Your task to perform on an android device: toggle notification dots Image 0: 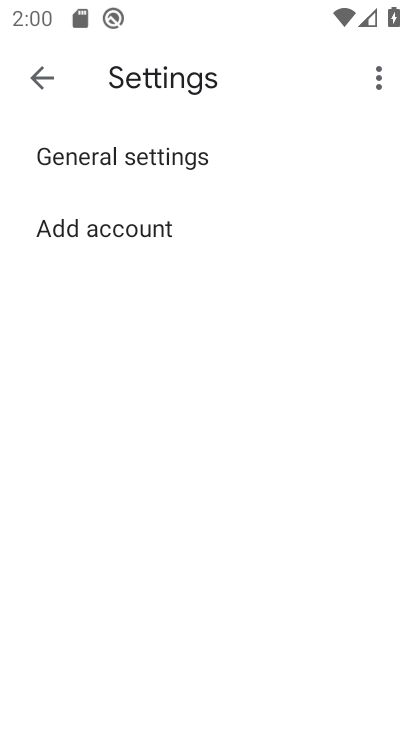
Step 0: press home button
Your task to perform on an android device: toggle notification dots Image 1: 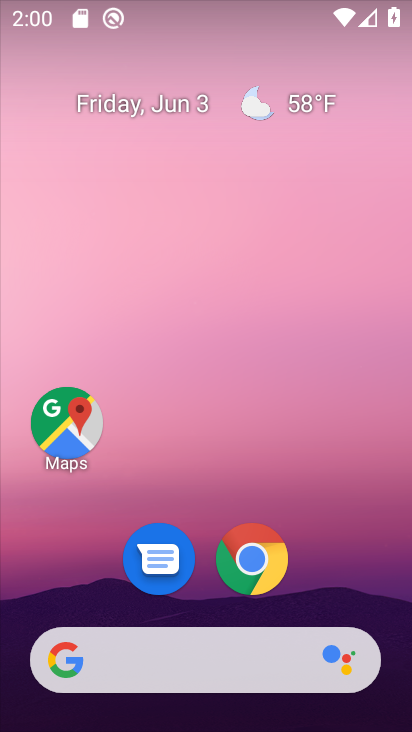
Step 1: drag from (197, 610) to (340, 43)
Your task to perform on an android device: toggle notification dots Image 2: 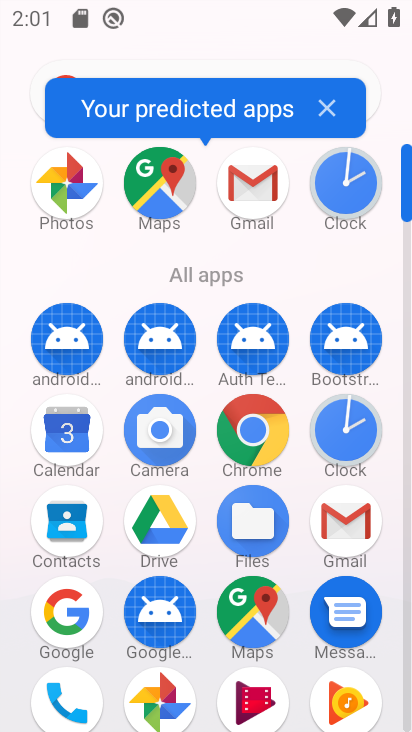
Step 2: drag from (204, 579) to (173, 12)
Your task to perform on an android device: toggle notification dots Image 3: 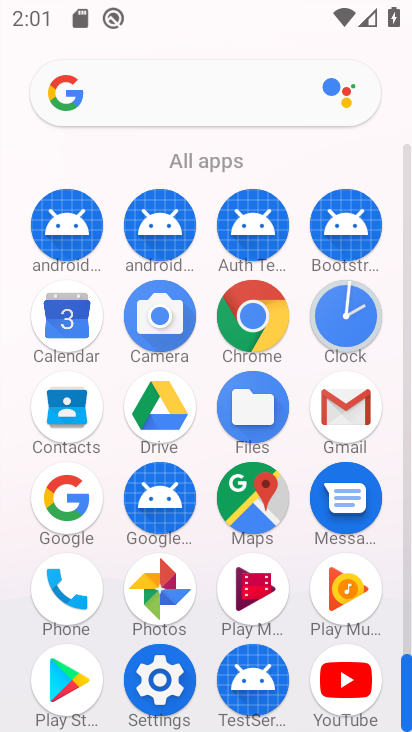
Step 3: click (154, 644)
Your task to perform on an android device: toggle notification dots Image 4: 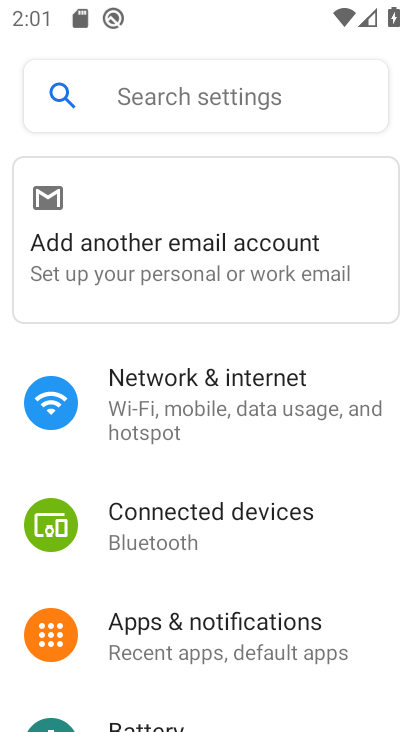
Step 4: click (163, 646)
Your task to perform on an android device: toggle notification dots Image 5: 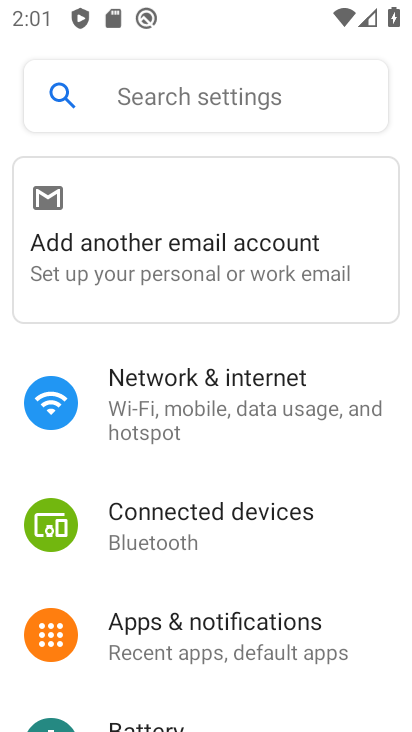
Step 5: click (201, 668)
Your task to perform on an android device: toggle notification dots Image 6: 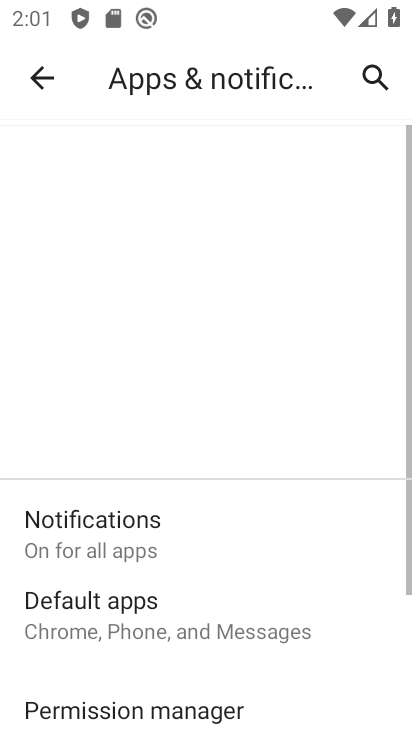
Step 6: drag from (179, 619) to (180, 16)
Your task to perform on an android device: toggle notification dots Image 7: 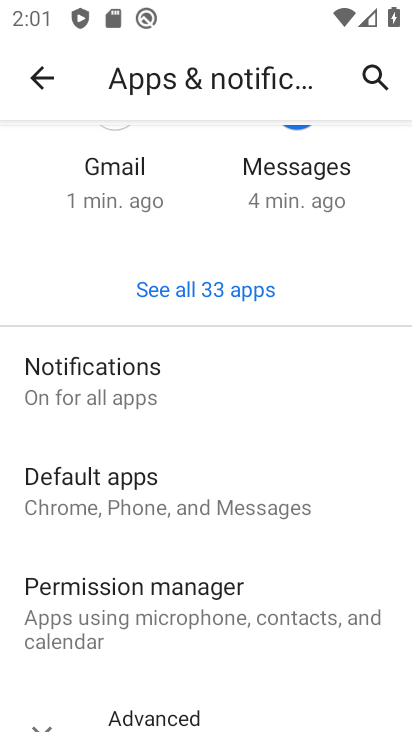
Step 7: drag from (268, 650) to (189, 115)
Your task to perform on an android device: toggle notification dots Image 8: 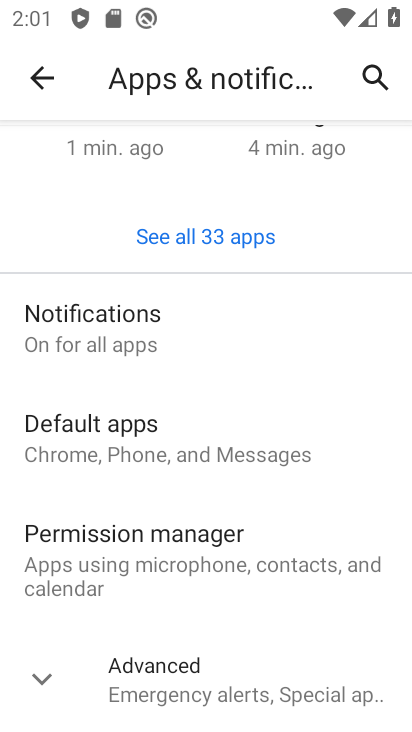
Step 8: click (196, 686)
Your task to perform on an android device: toggle notification dots Image 9: 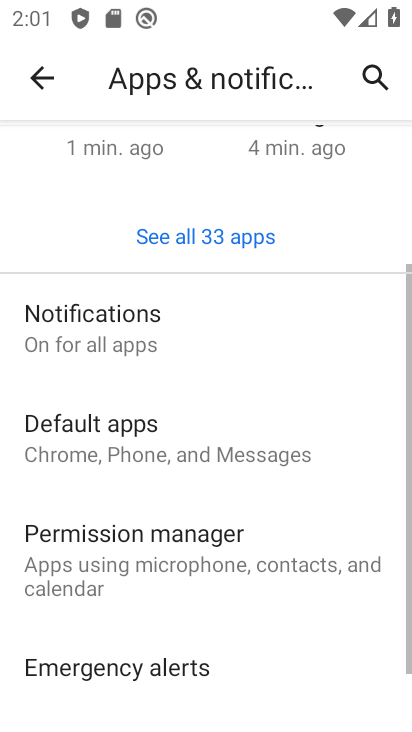
Step 9: drag from (212, 636) to (166, 181)
Your task to perform on an android device: toggle notification dots Image 10: 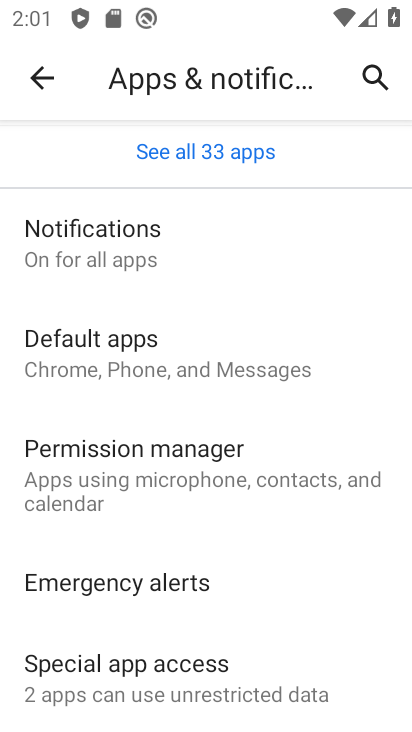
Step 10: click (90, 248)
Your task to perform on an android device: toggle notification dots Image 11: 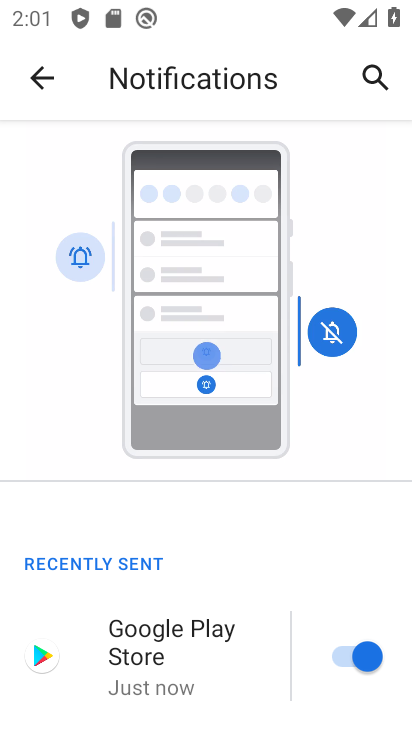
Step 11: drag from (177, 561) to (93, 70)
Your task to perform on an android device: toggle notification dots Image 12: 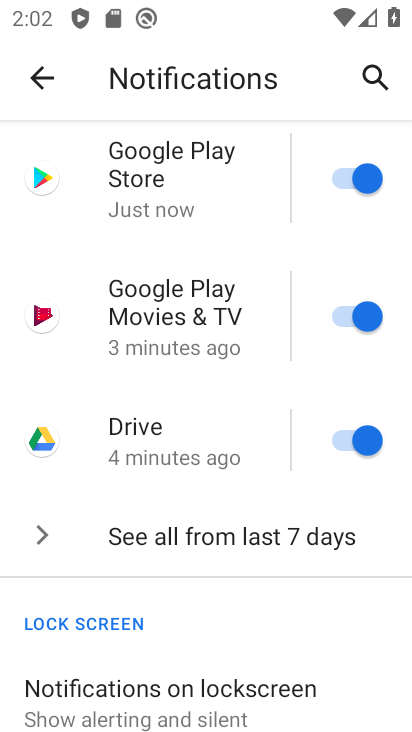
Step 12: drag from (226, 631) to (199, 109)
Your task to perform on an android device: toggle notification dots Image 13: 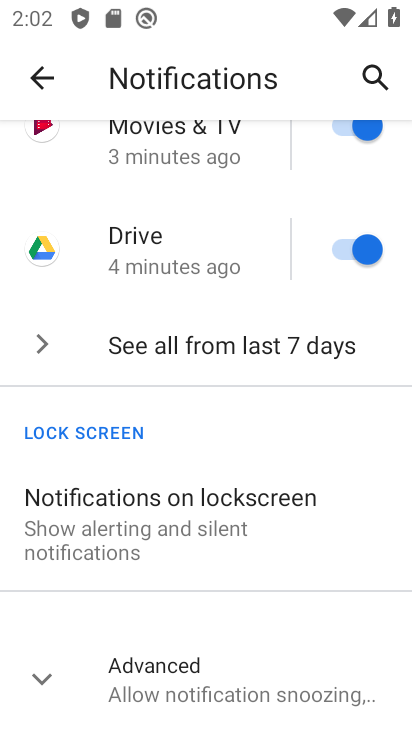
Step 13: click (210, 713)
Your task to perform on an android device: toggle notification dots Image 14: 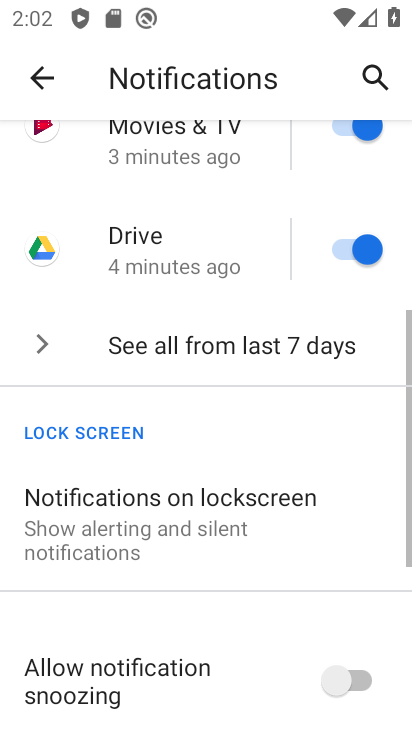
Step 14: drag from (150, 635) to (126, 147)
Your task to perform on an android device: toggle notification dots Image 15: 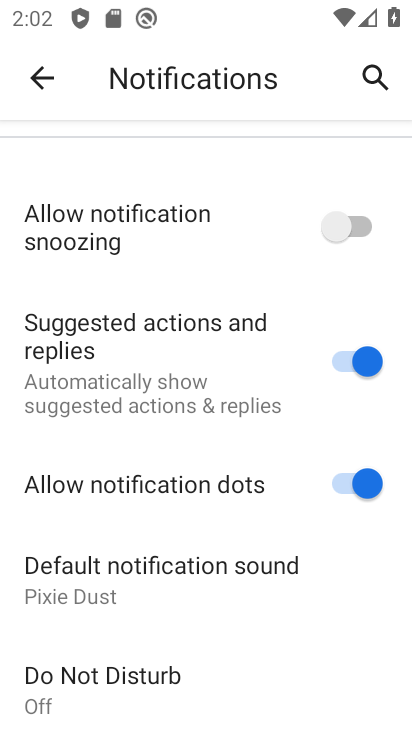
Step 15: click (350, 477)
Your task to perform on an android device: toggle notification dots Image 16: 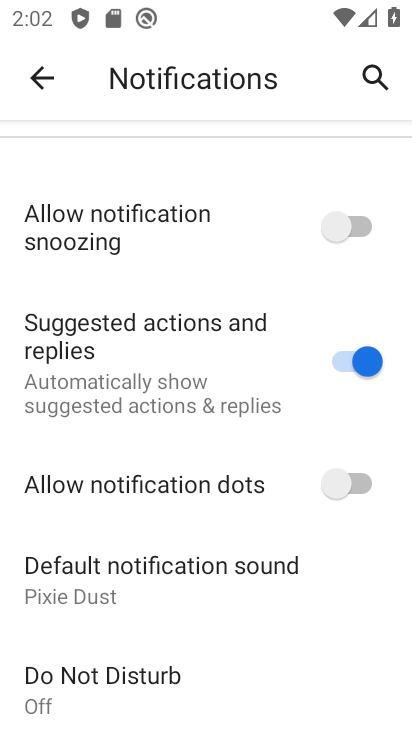
Step 16: task complete